Your task to perform on an android device: Go to CNN.com Image 0: 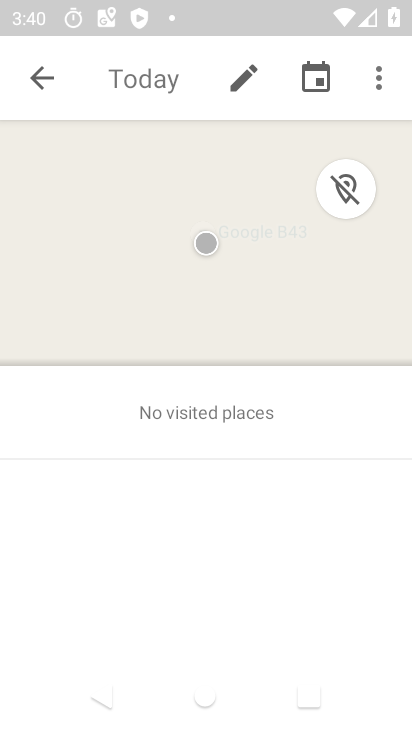
Step 0: press home button
Your task to perform on an android device: Go to CNN.com Image 1: 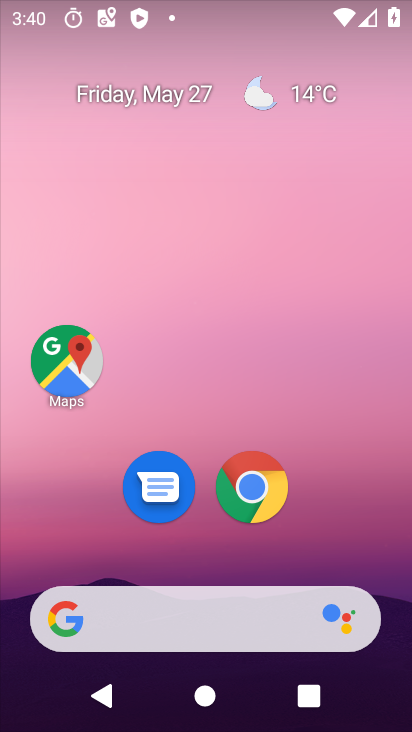
Step 1: click (250, 484)
Your task to perform on an android device: Go to CNN.com Image 2: 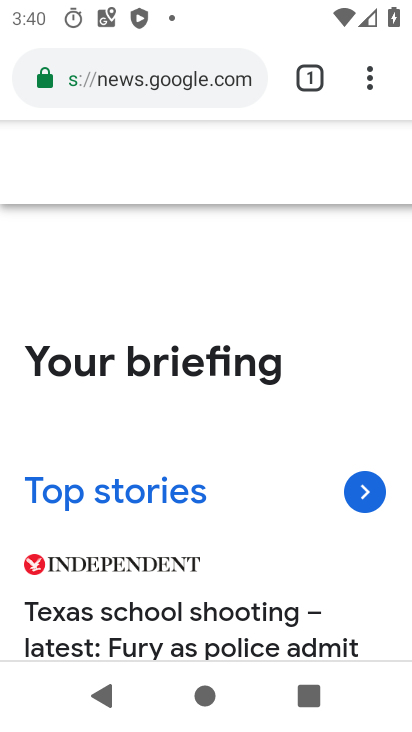
Step 2: click (201, 62)
Your task to perform on an android device: Go to CNN.com Image 3: 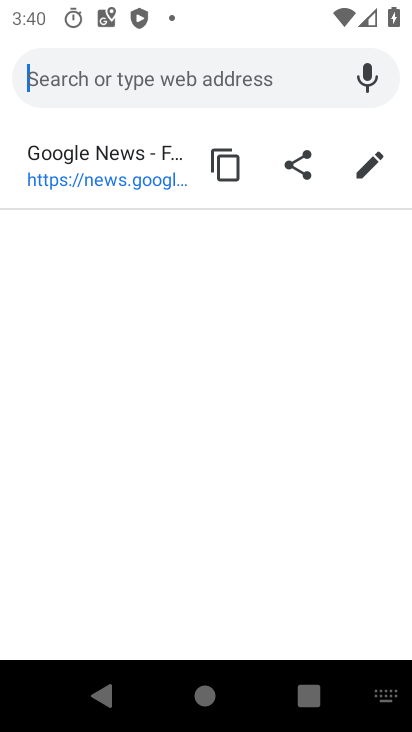
Step 3: type "cnn.co,"
Your task to perform on an android device: Go to CNN.com Image 4: 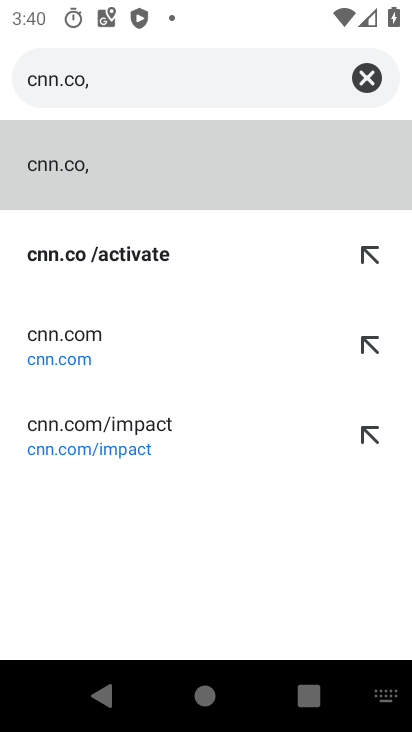
Step 4: click (74, 359)
Your task to perform on an android device: Go to CNN.com Image 5: 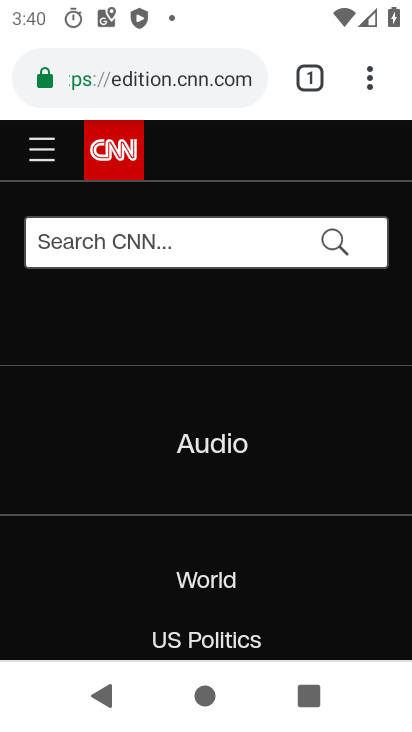
Step 5: task complete